Your task to perform on an android device: turn on translation in the chrome app Image 0: 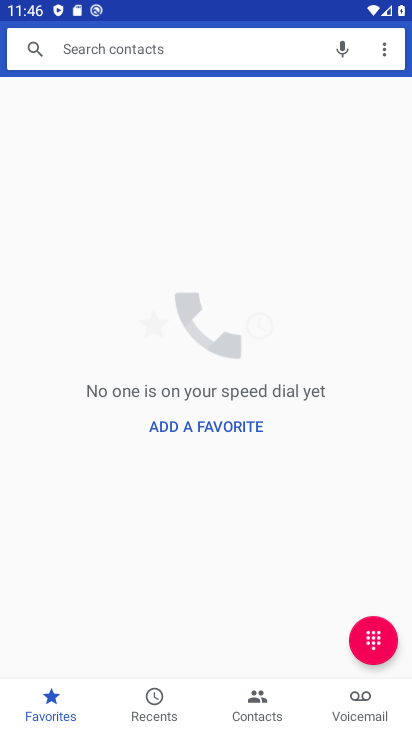
Step 0: press home button
Your task to perform on an android device: turn on translation in the chrome app Image 1: 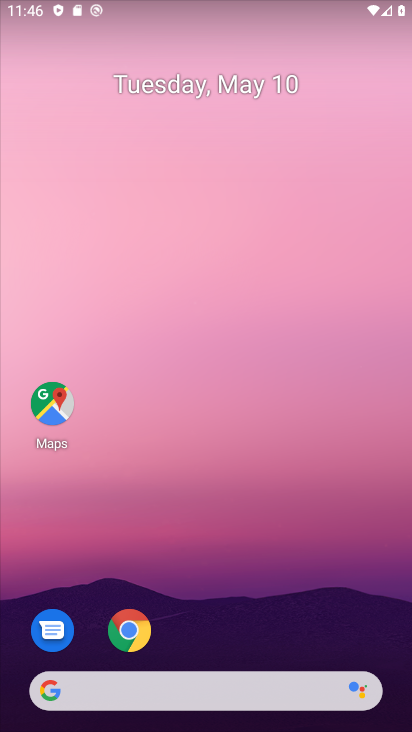
Step 1: drag from (208, 689) to (143, 99)
Your task to perform on an android device: turn on translation in the chrome app Image 2: 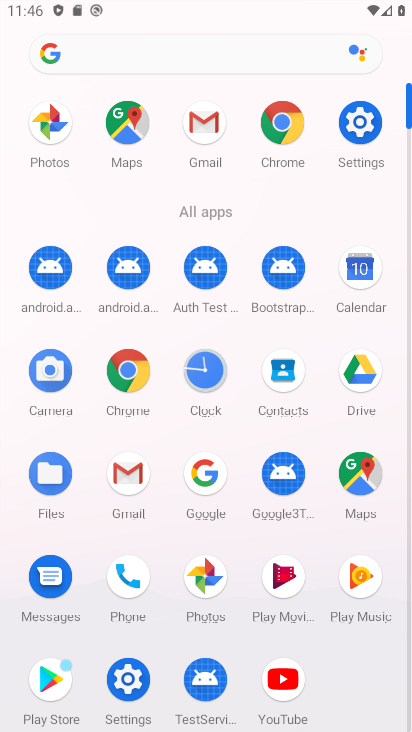
Step 2: click (137, 384)
Your task to perform on an android device: turn on translation in the chrome app Image 3: 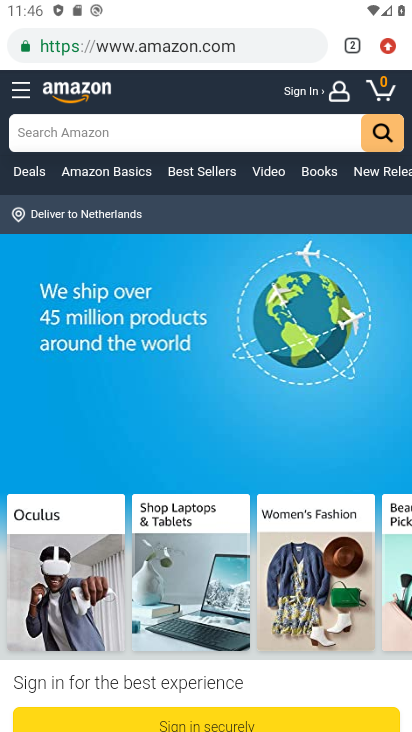
Step 3: click (394, 49)
Your task to perform on an android device: turn on translation in the chrome app Image 4: 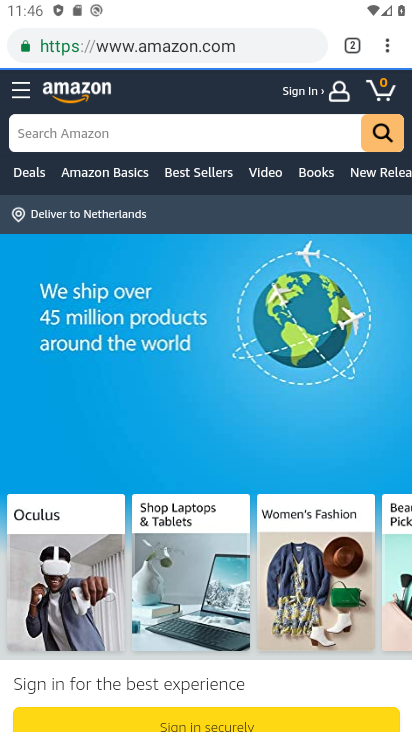
Step 4: click (390, 45)
Your task to perform on an android device: turn on translation in the chrome app Image 5: 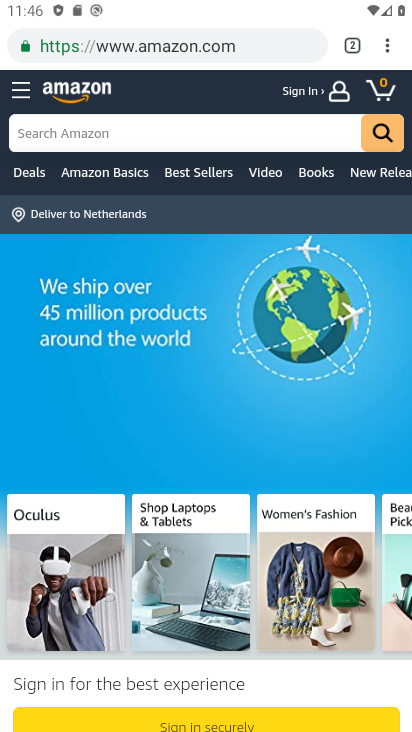
Step 5: drag from (389, 45) to (231, 598)
Your task to perform on an android device: turn on translation in the chrome app Image 6: 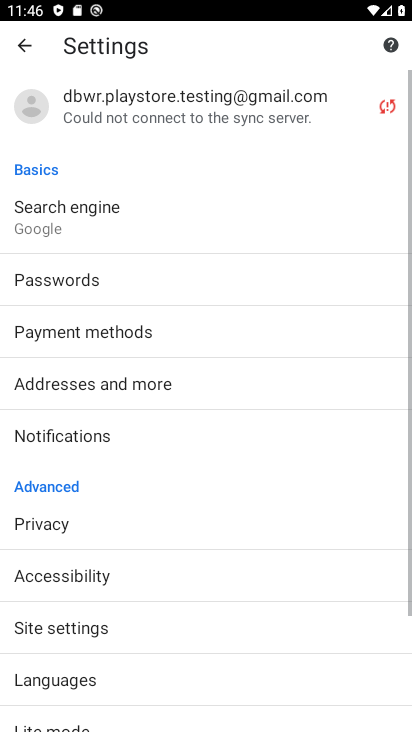
Step 6: drag from (231, 598) to (211, 324)
Your task to perform on an android device: turn on translation in the chrome app Image 7: 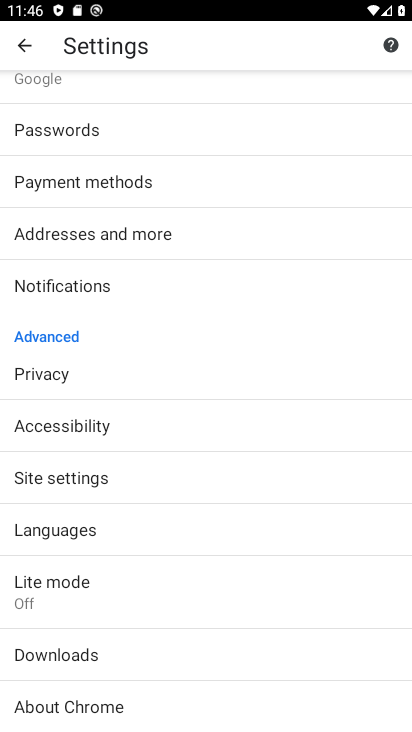
Step 7: click (66, 533)
Your task to perform on an android device: turn on translation in the chrome app Image 8: 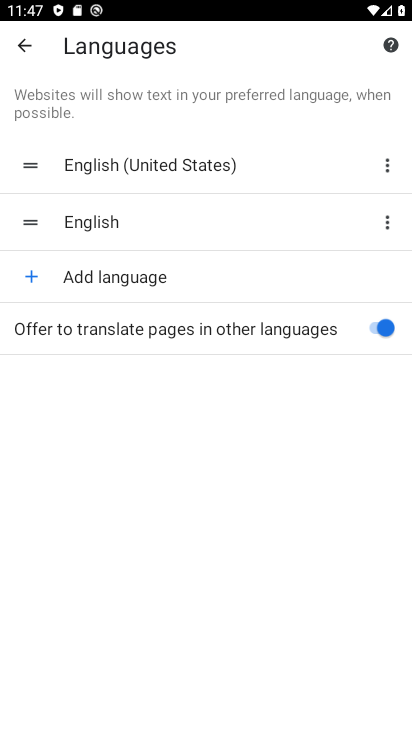
Step 8: task complete